Your task to perform on an android device: toggle pop-ups in chrome Image 0: 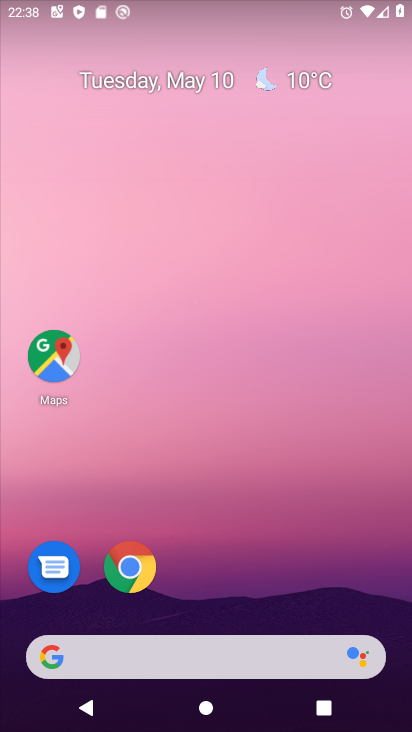
Step 0: click (142, 567)
Your task to perform on an android device: toggle pop-ups in chrome Image 1: 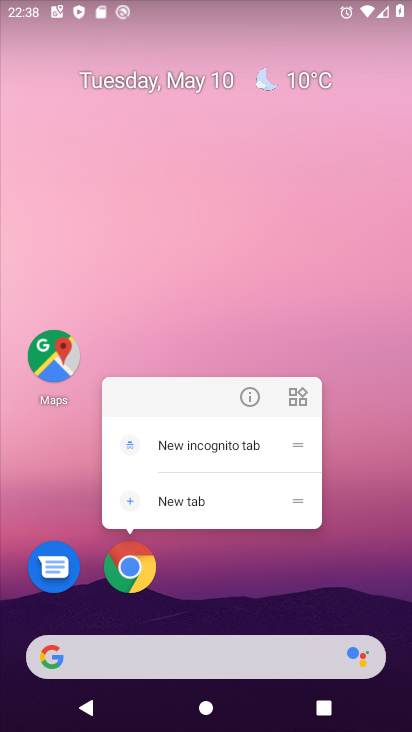
Step 1: click (139, 568)
Your task to perform on an android device: toggle pop-ups in chrome Image 2: 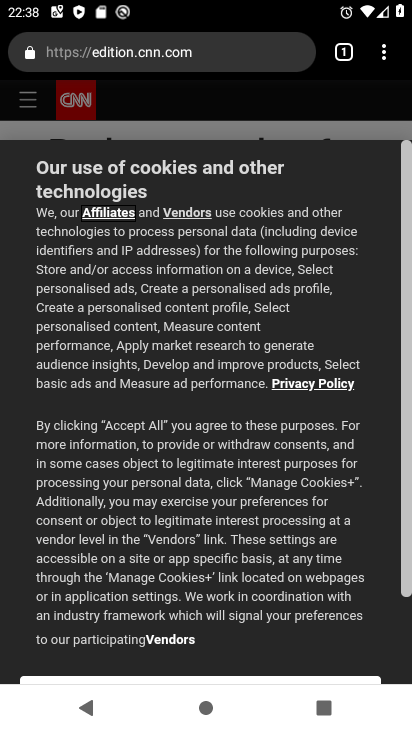
Step 2: drag from (388, 59) to (210, 579)
Your task to perform on an android device: toggle pop-ups in chrome Image 3: 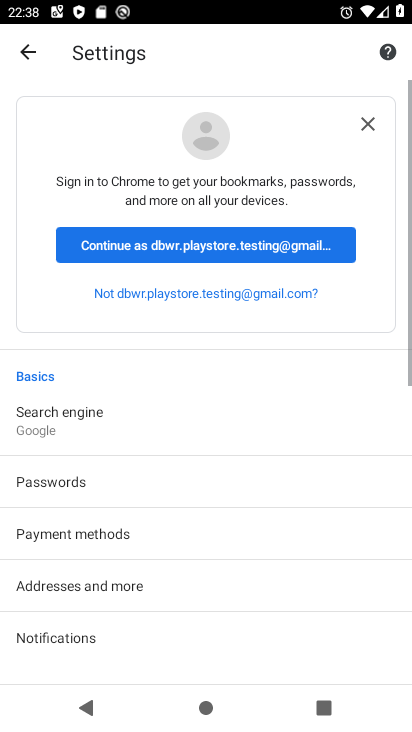
Step 3: drag from (210, 579) to (215, 227)
Your task to perform on an android device: toggle pop-ups in chrome Image 4: 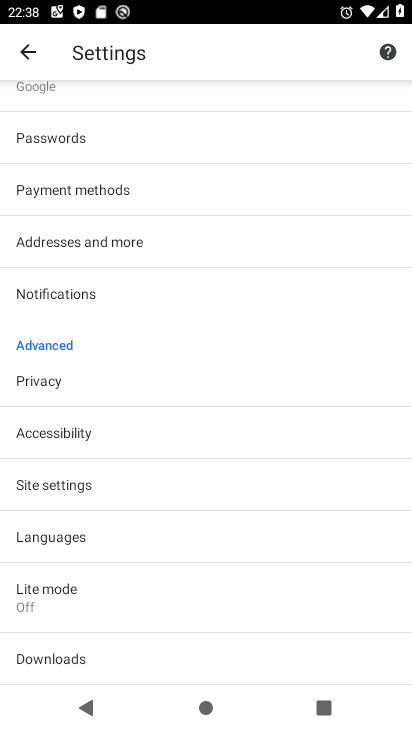
Step 4: click (65, 494)
Your task to perform on an android device: toggle pop-ups in chrome Image 5: 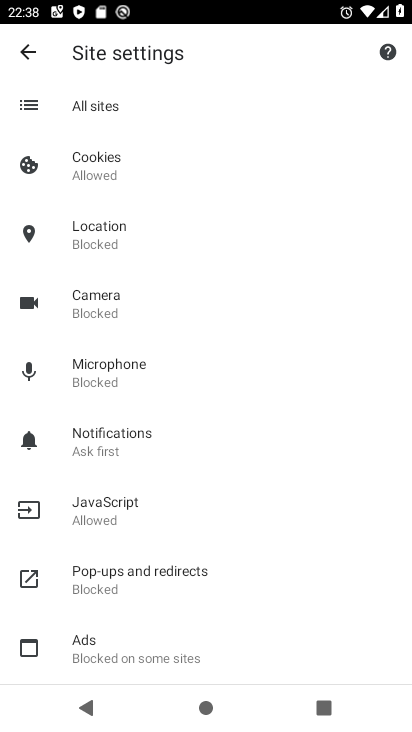
Step 5: click (134, 574)
Your task to perform on an android device: toggle pop-ups in chrome Image 6: 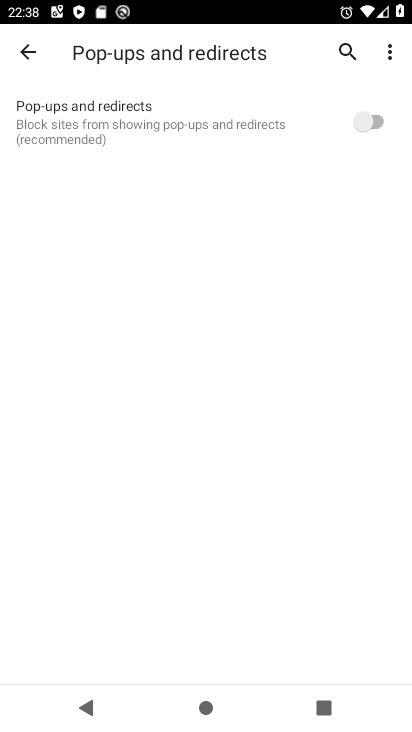
Step 6: click (369, 124)
Your task to perform on an android device: toggle pop-ups in chrome Image 7: 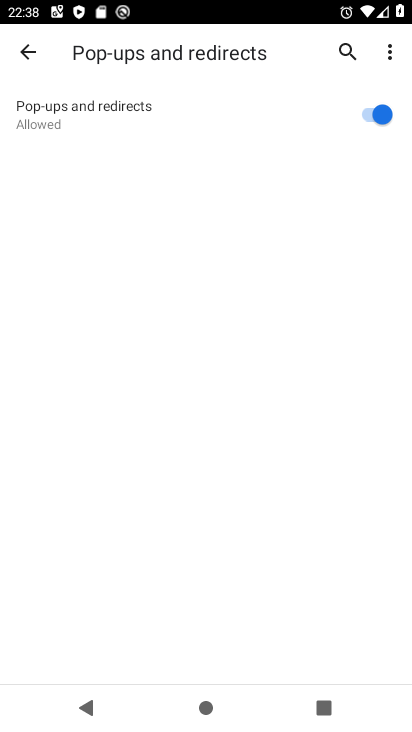
Step 7: task complete